Your task to perform on an android device: open chrome and create a bookmark for the current page Image 0: 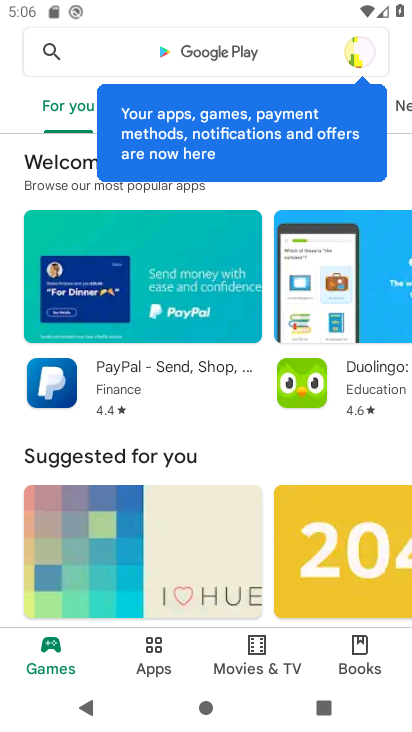
Step 0: press home button
Your task to perform on an android device: open chrome and create a bookmark for the current page Image 1: 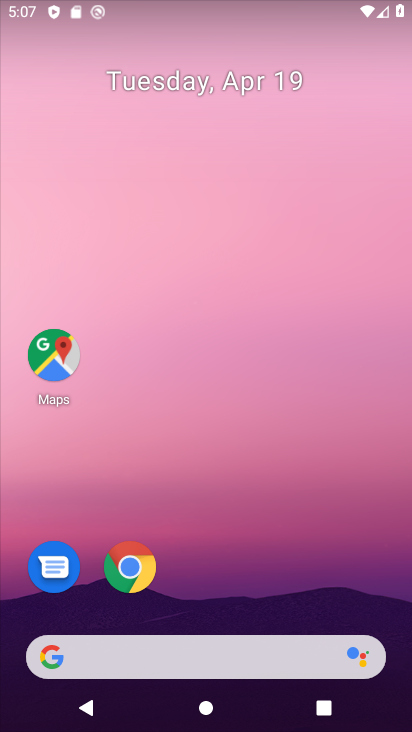
Step 1: drag from (278, 587) to (271, 151)
Your task to perform on an android device: open chrome and create a bookmark for the current page Image 2: 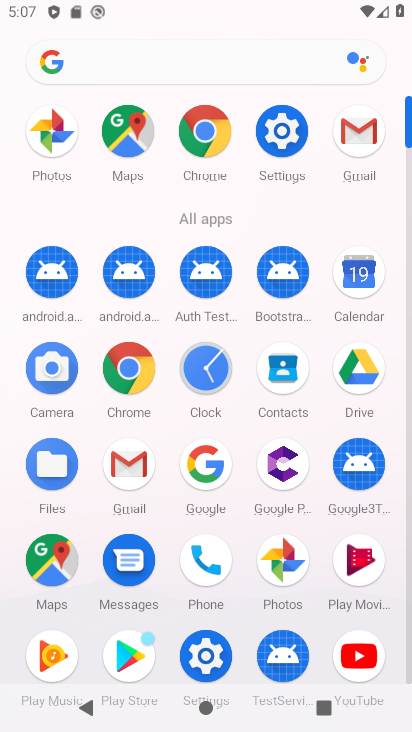
Step 2: click (199, 140)
Your task to perform on an android device: open chrome and create a bookmark for the current page Image 3: 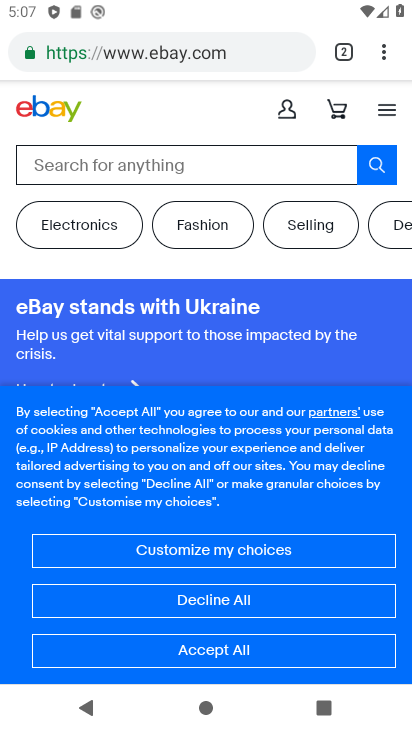
Step 3: click (382, 57)
Your task to perform on an android device: open chrome and create a bookmark for the current page Image 4: 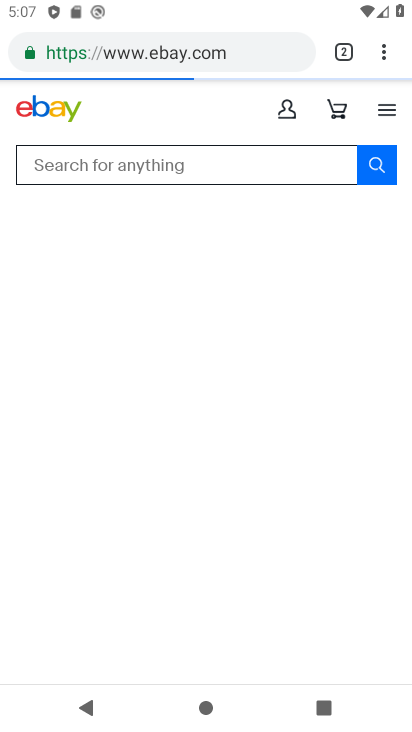
Step 4: drag from (385, 39) to (12, 90)
Your task to perform on an android device: open chrome and create a bookmark for the current page Image 5: 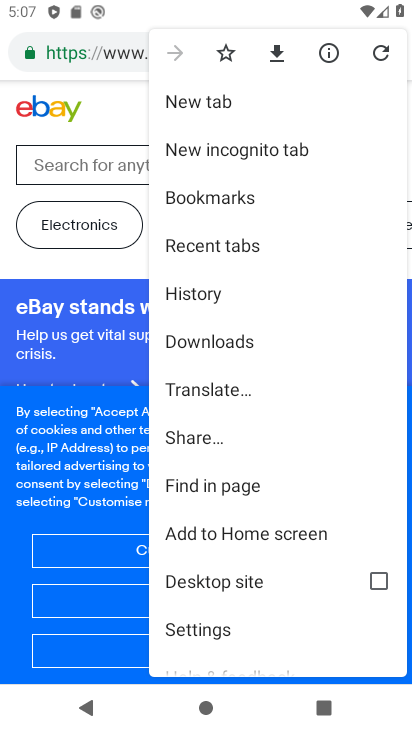
Step 5: click (91, 103)
Your task to perform on an android device: open chrome and create a bookmark for the current page Image 6: 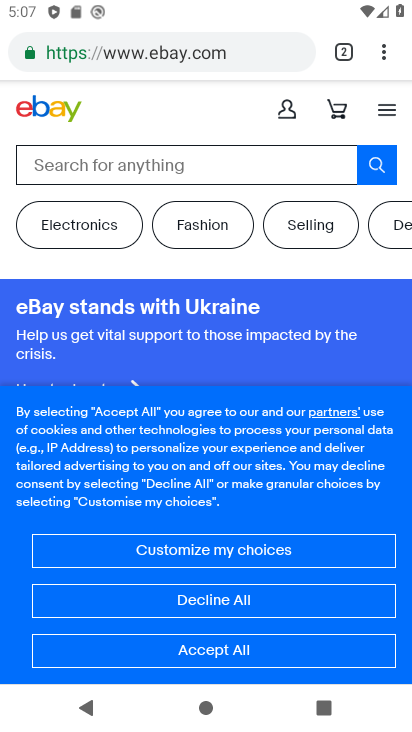
Step 6: click (236, 51)
Your task to perform on an android device: open chrome and create a bookmark for the current page Image 7: 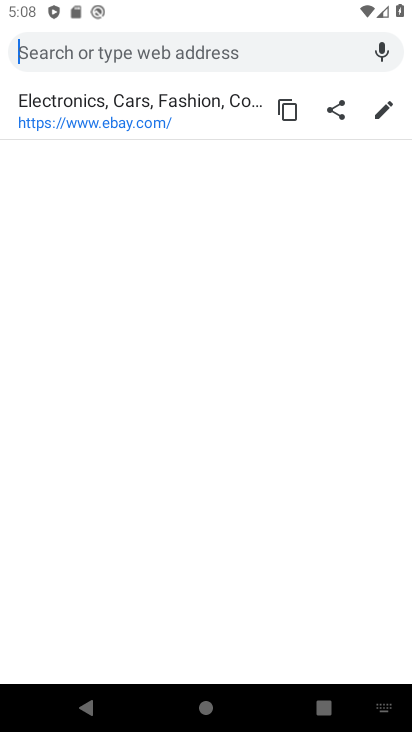
Step 7: task complete